Your task to perform on an android device: toggle wifi Image 0: 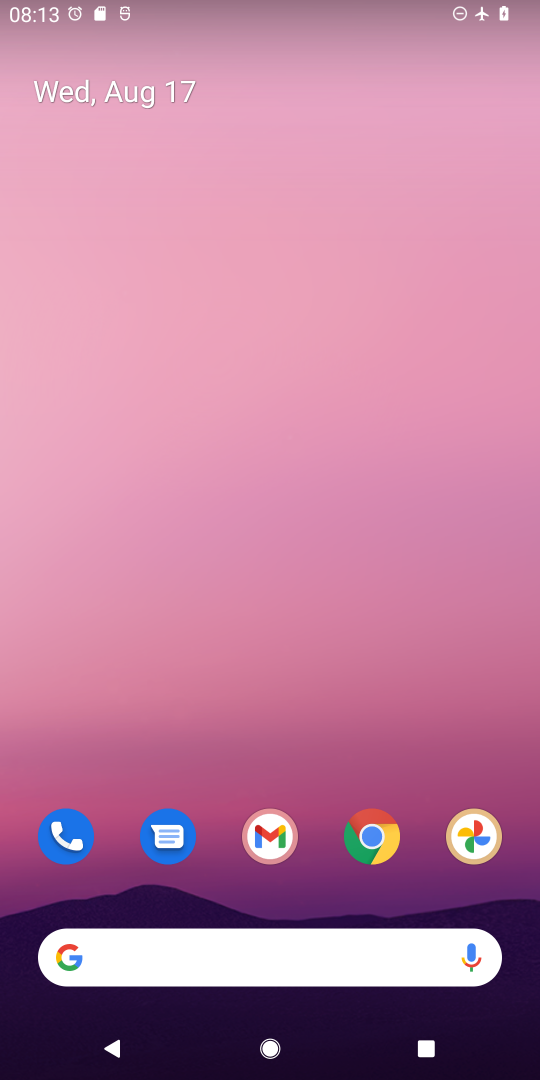
Step 0: drag from (350, 941) to (364, 448)
Your task to perform on an android device: toggle wifi Image 1: 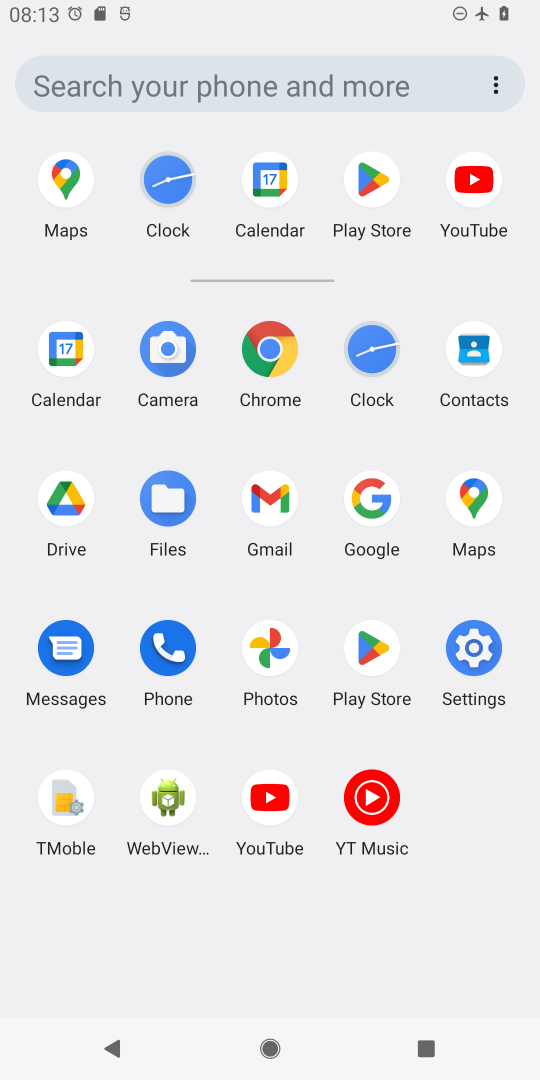
Step 1: click (481, 648)
Your task to perform on an android device: toggle wifi Image 2: 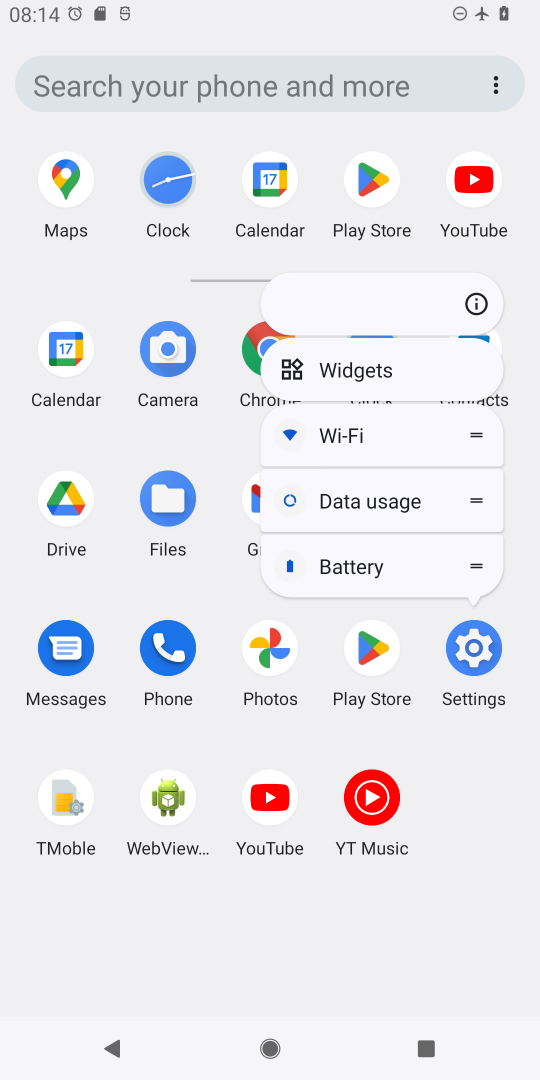
Step 2: click (481, 648)
Your task to perform on an android device: toggle wifi Image 3: 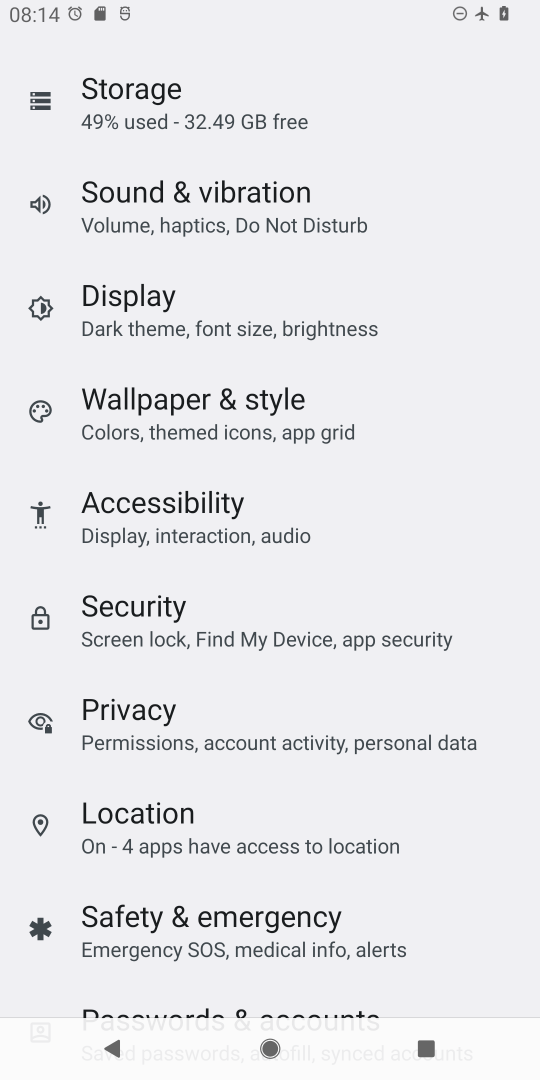
Step 3: drag from (169, 153) to (172, 896)
Your task to perform on an android device: toggle wifi Image 4: 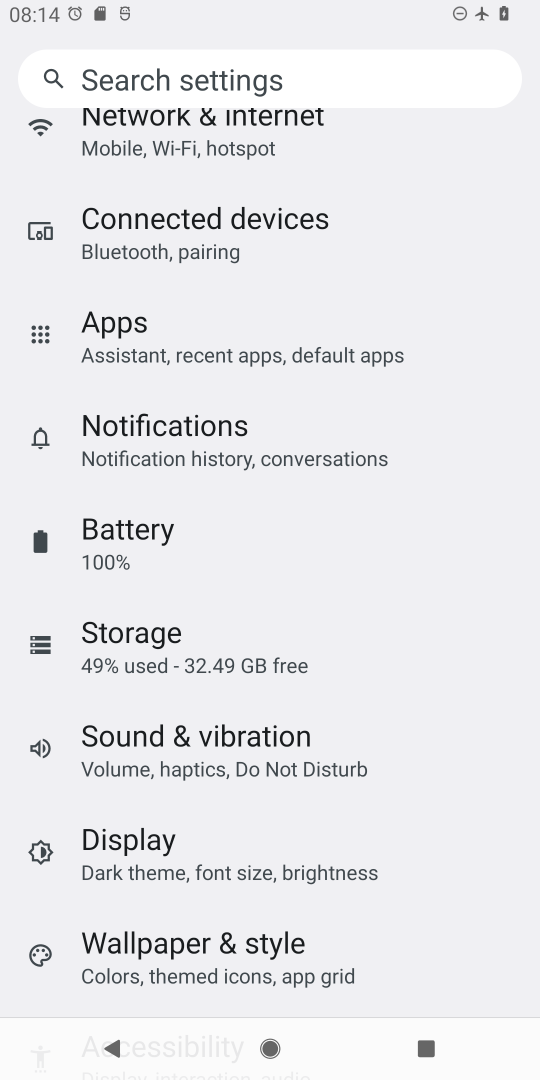
Step 4: drag from (225, 188) to (221, 793)
Your task to perform on an android device: toggle wifi Image 5: 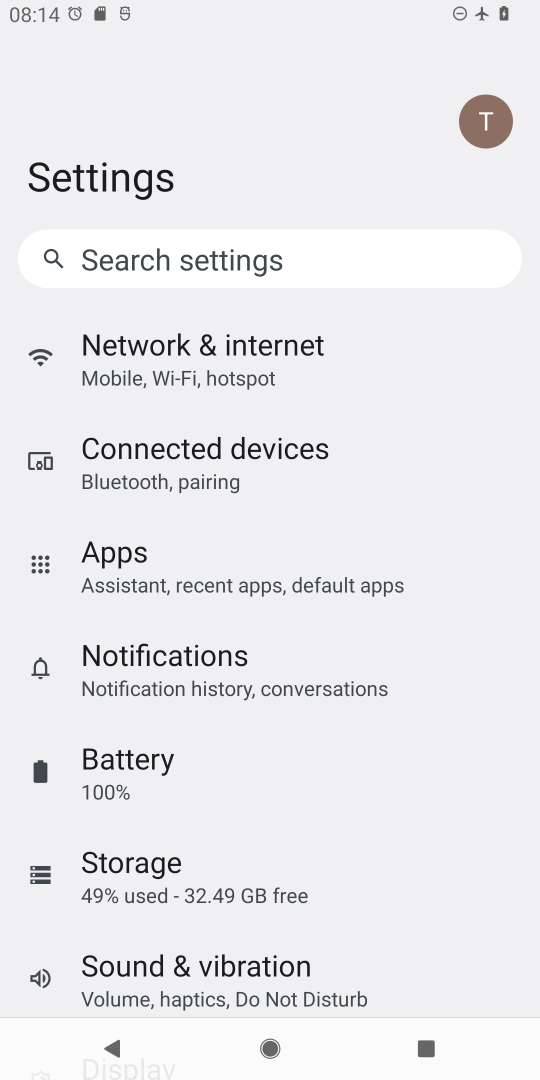
Step 5: click (217, 339)
Your task to perform on an android device: toggle wifi Image 6: 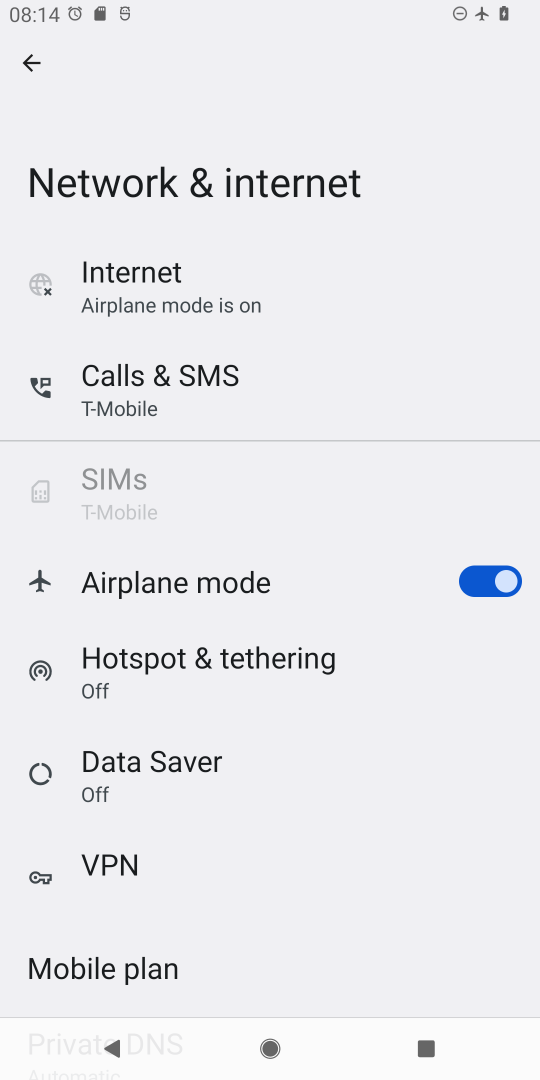
Step 6: click (224, 305)
Your task to perform on an android device: toggle wifi Image 7: 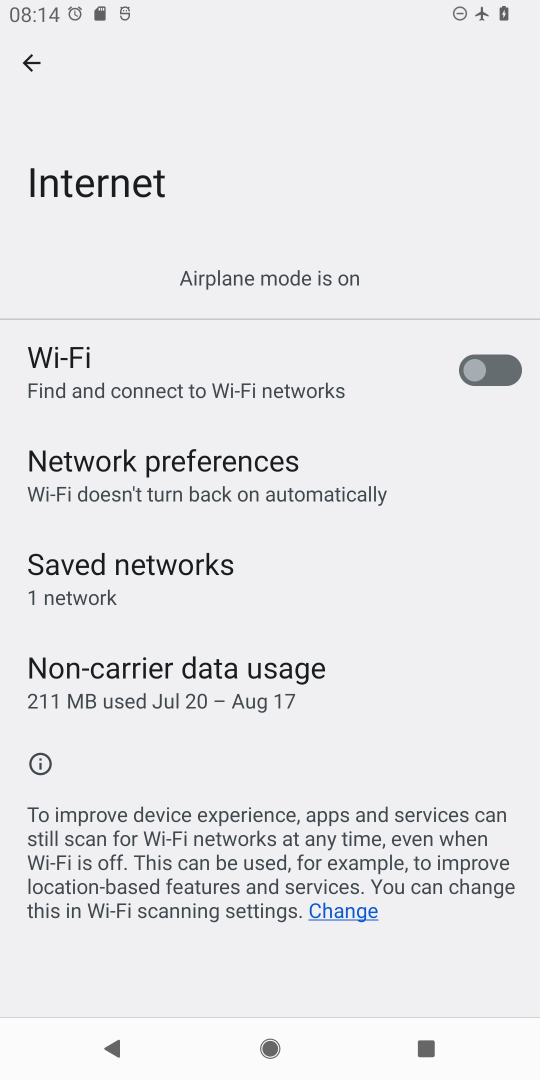
Step 7: click (499, 354)
Your task to perform on an android device: toggle wifi Image 8: 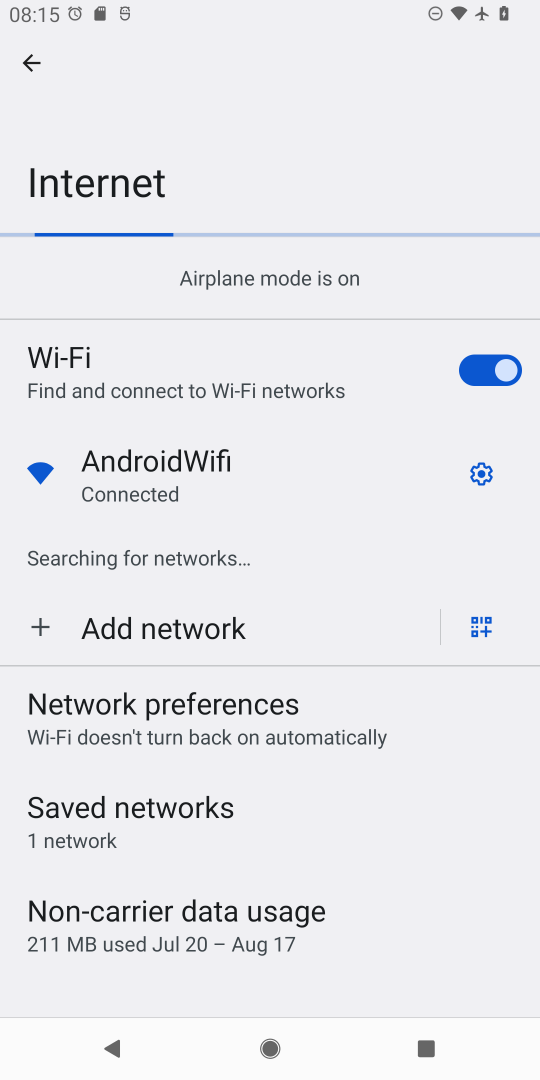
Step 8: task complete